Your task to perform on an android device: snooze an email in the gmail app Image 0: 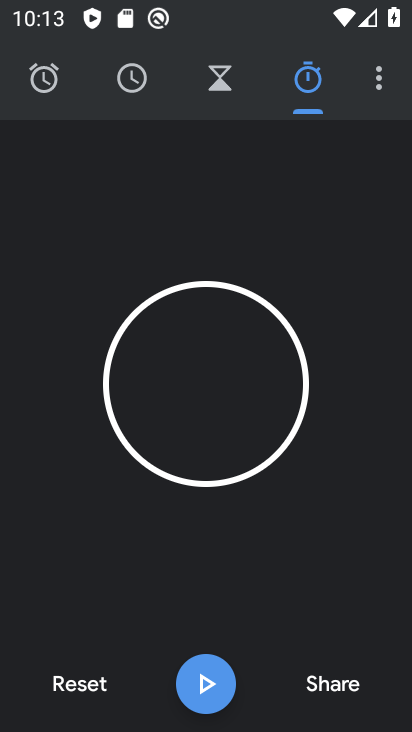
Step 0: press home button
Your task to perform on an android device: snooze an email in the gmail app Image 1: 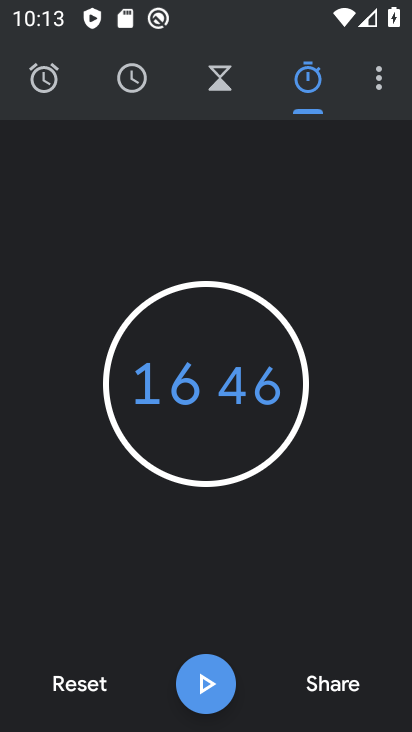
Step 1: press home button
Your task to perform on an android device: snooze an email in the gmail app Image 2: 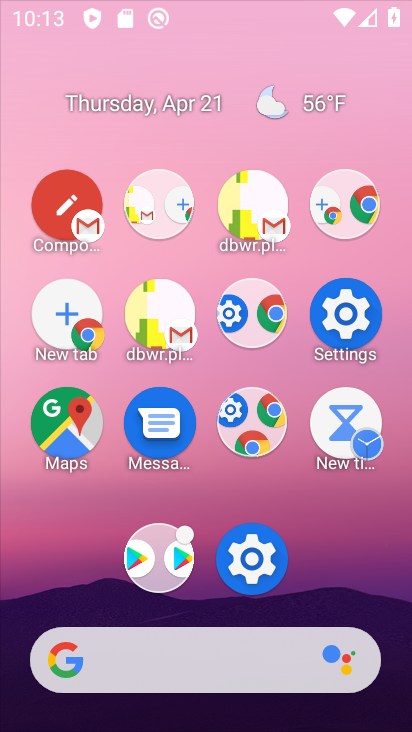
Step 2: press home button
Your task to perform on an android device: snooze an email in the gmail app Image 3: 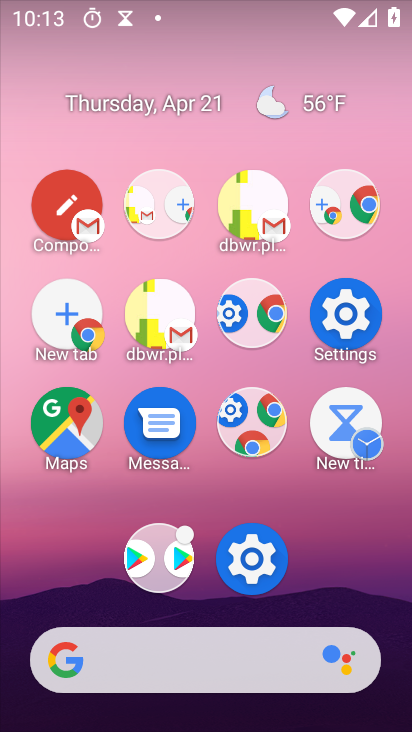
Step 3: press home button
Your task to perform on an android device: snooze an email in the gmail app Image 4: 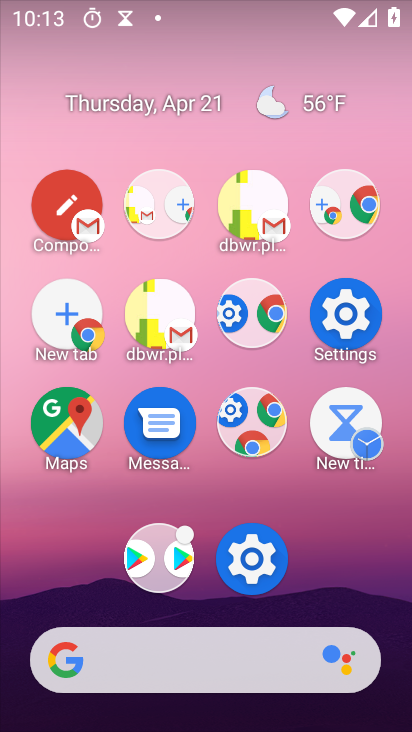
Step 4: press home button
Your task to perform on an android device: snooze an email in the gmail app Image 5: 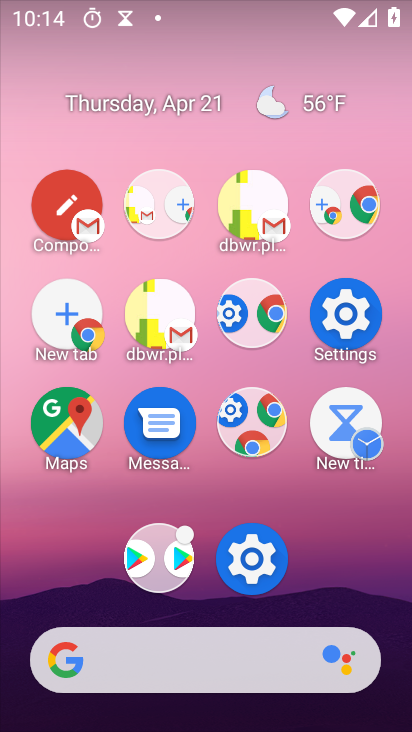
Step 5: drag from (349, 560) to (232, 74)
Your task to perform on an android device: snooze an email in the gmail app Image 6: 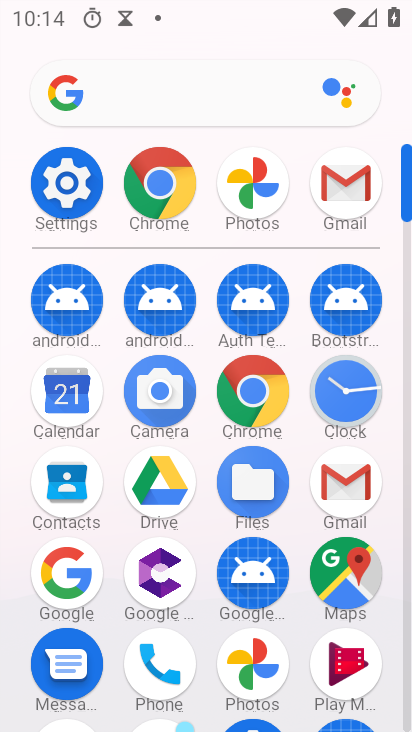
Step 6: click (355, 464)
Your task to perform on an android device: snooze an email in the gmail app Image 7: 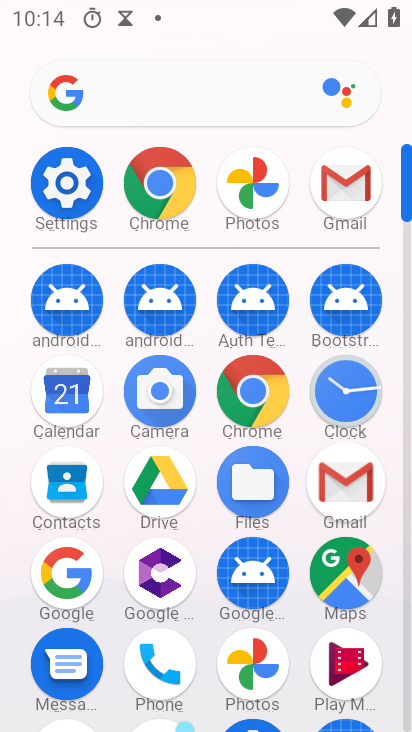
Step 7: click (355, 464)
Your task to perform on an android device: snooze an email in the gmail app Image 8: 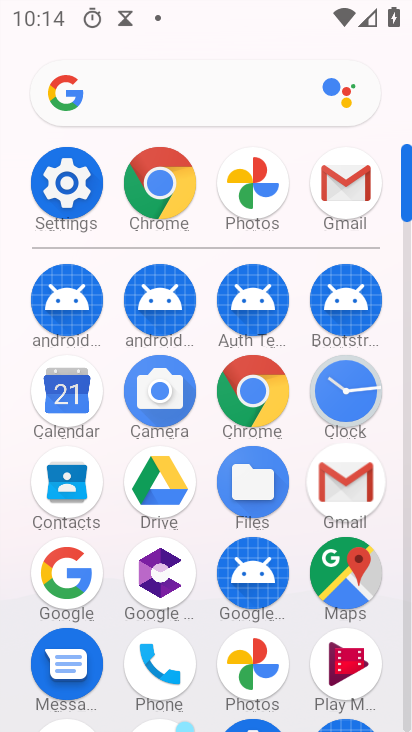
Step 8: click (354, 482)
Your task to perform on an android device: snooze an email in the gmail app Image 9: 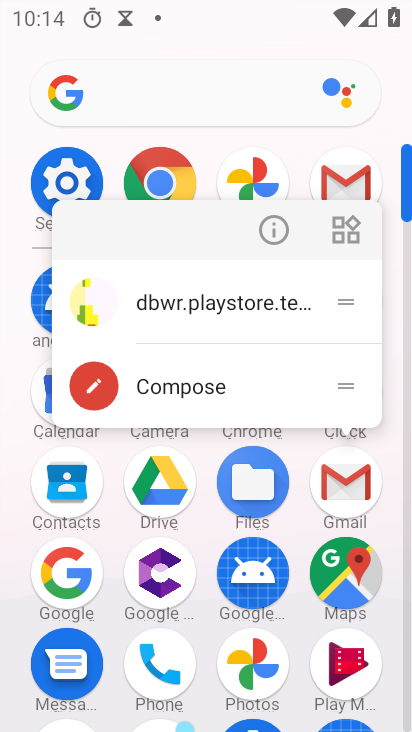
Step 9: click (343, 492)
Your task to perform on an android device: snooze an email in the gmail app Image 10: 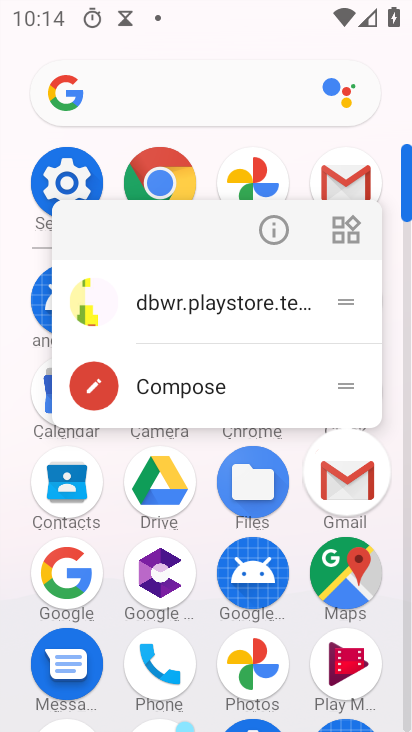
Step 10: click (343, 474)
Your task to perform on an android device: snooze an email in the gmail app Image 11: 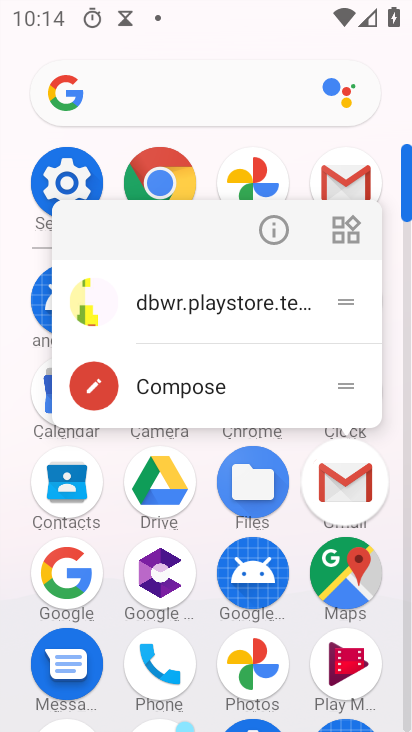
Step 11: click (347, 479)
Your task to perform on an android device: snooze an email in the gmail app Image 12: 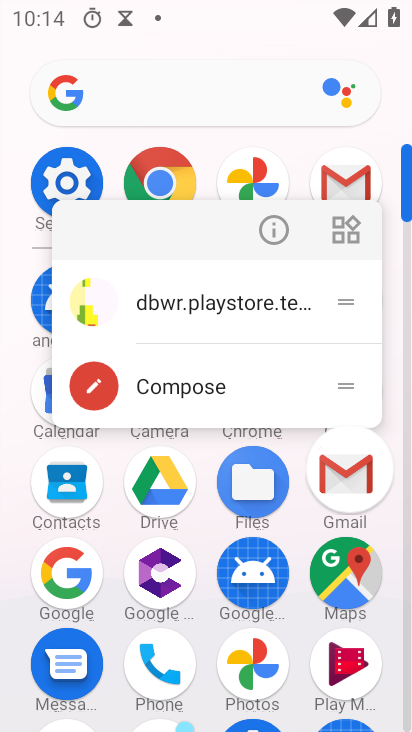
Step 12: click (359, 452)
Your task to perform on an android device: snooze an email in the gmail app Image 13: 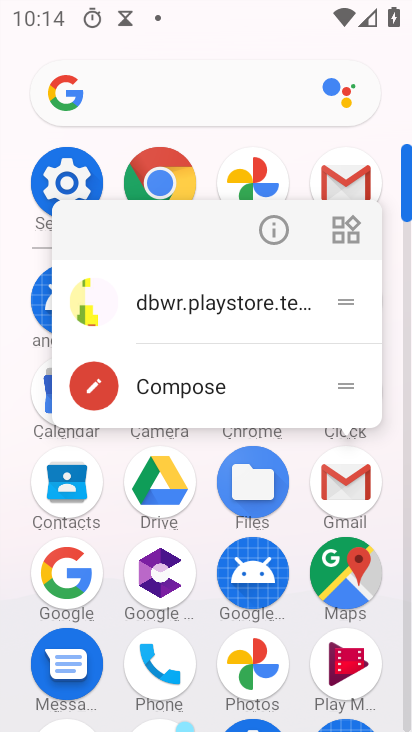
Step 13: click (338, 460)
Your task to perform on an android device: snooze an email in the gmail app Image 14: 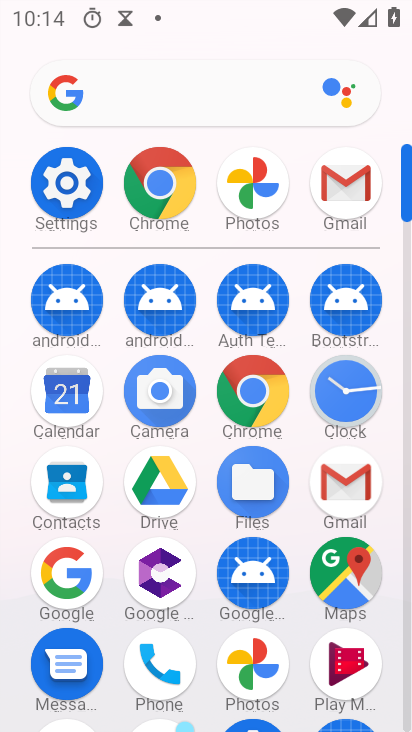
Step 14: click (343, 471)
Your task to perform on an android device: snooze an email in the gmail app Image 15: 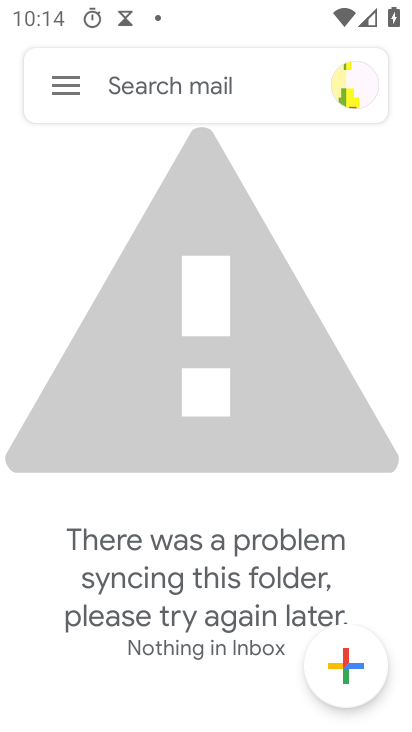
Step 15: click (57, 84)
Your task to perform on an android device: snooze an email in the gmail app Image 16: 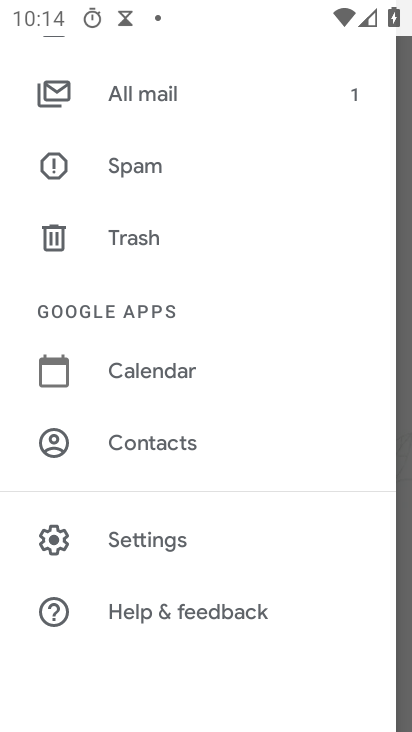
Step 16: click (151, 533)
Your task to perform on an android device: snooze an email in the gmail app Image 17: 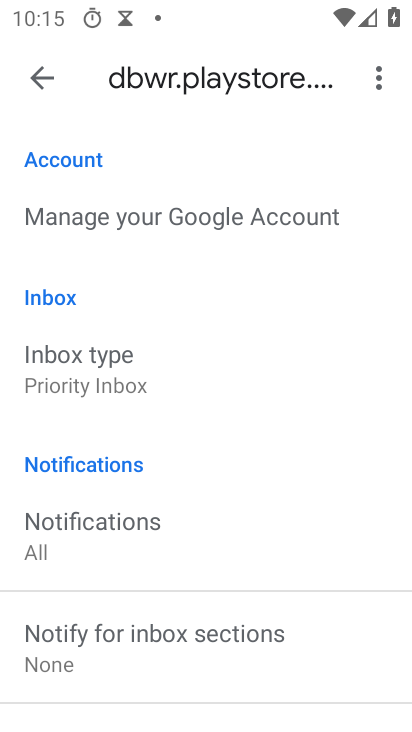
Step 17: click (39, 76)
Your task to perform on an android device: snooze an email in the gmail app Image 18: 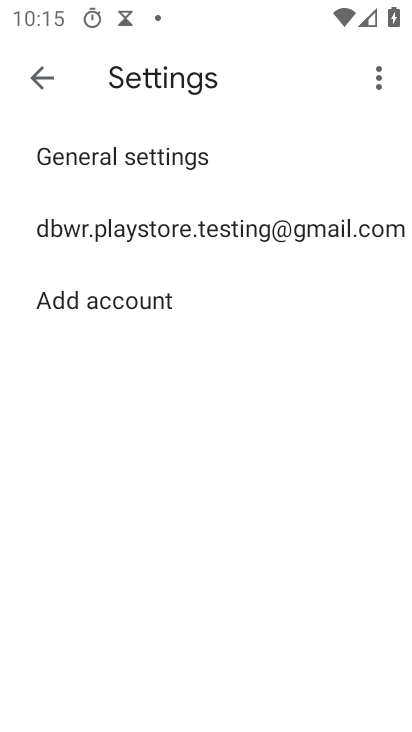
Step 18: click (31, 74)
Your task to perform on an android device: snooze an email in the gmail app Image 19: 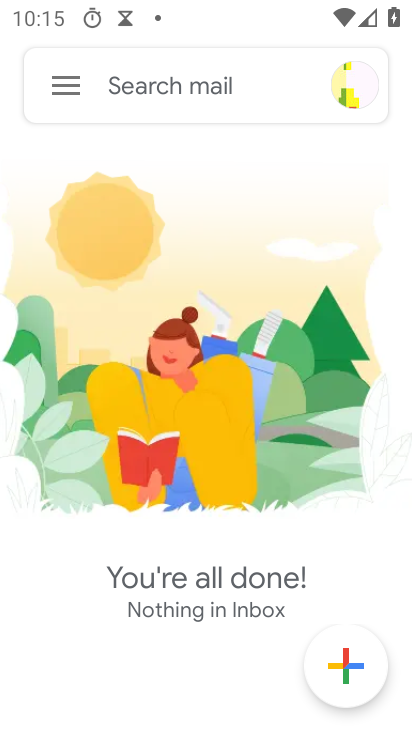
Step 19: drag from (64, 78) to (31, 148)
Your task to perform on an android device: snooze an email in the gmail app Image 20: 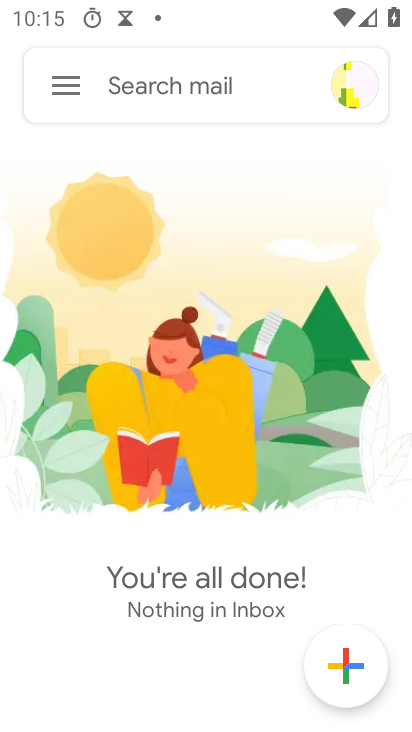
Step 20: drag from (73, 74) to (115, 479)
Your task to perform on an android device: snooze an email in the gmail app Image 21: 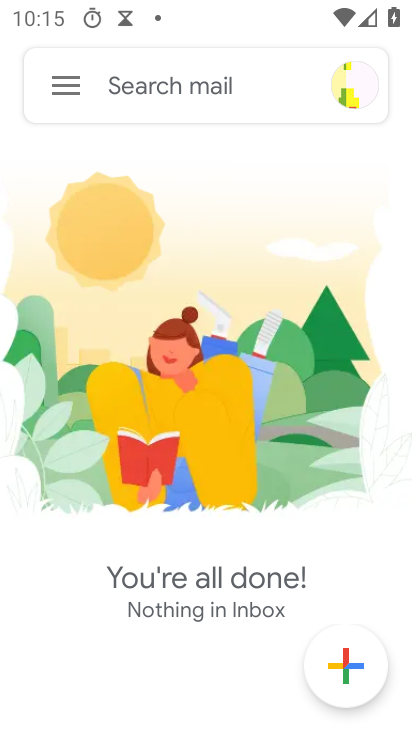
Step 21: drag from (74, 88) to (83, 568)
Your task to perform on an android device: snooze an email in the gmail app Image 22: 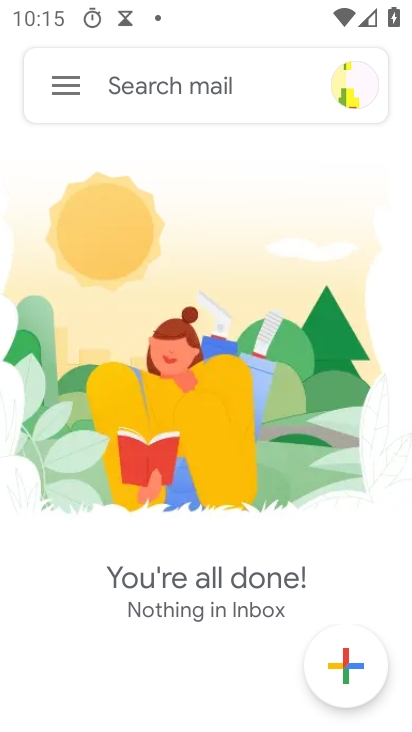
Step 22: drag from (68, 84) to (94, 495)
Your task to perform on an android device: snooze an email in the gmail app Image 23: 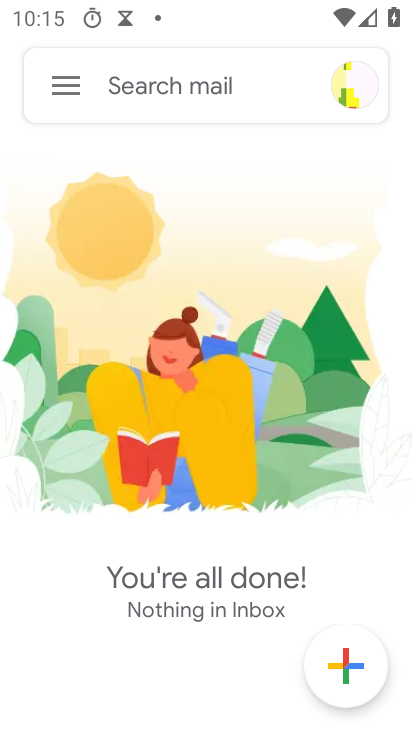
Step 23: click (64, 87)
Your task to perform on an android device: snooze an email in the gmail app Image 24: 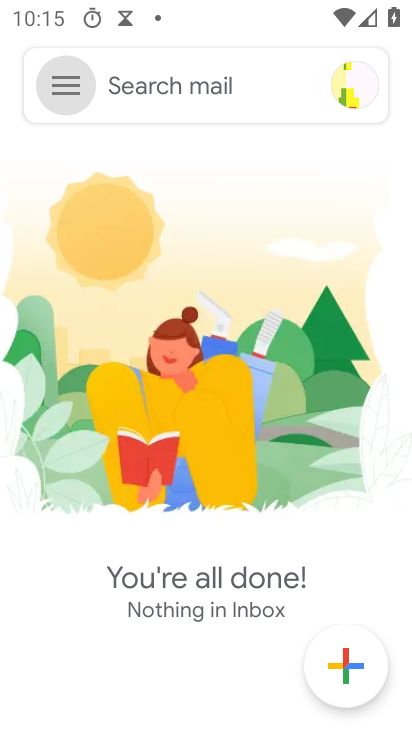
Step 24: click (64, 87)
Your task to perform on an android device: snooze an email in the gmail app Image 25: 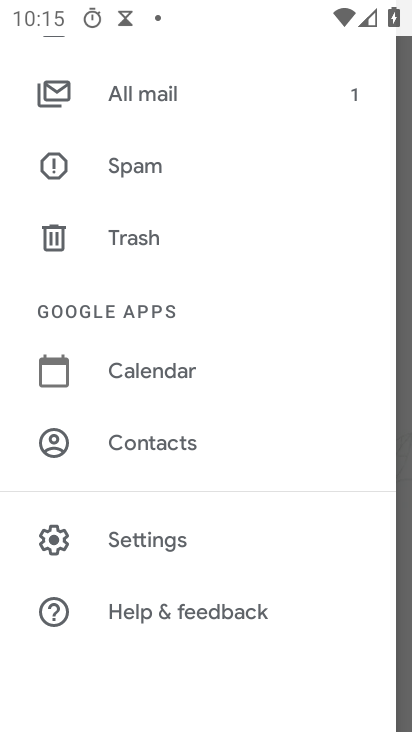
Step 25: drag from (130, 257) to (157, 447)
Your task to perform on an android device: snooze an email in the gmail app Image 26: 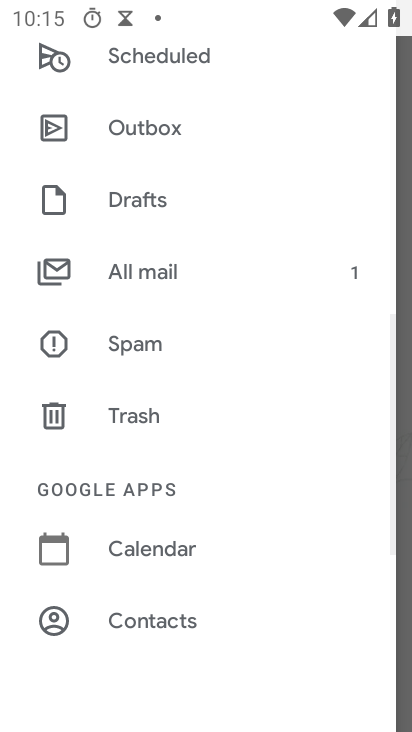
Step 26: drag from (160, 195) to (195, 404)
Your task to perform on an android device: snooze an email in the gmail app Image 27: 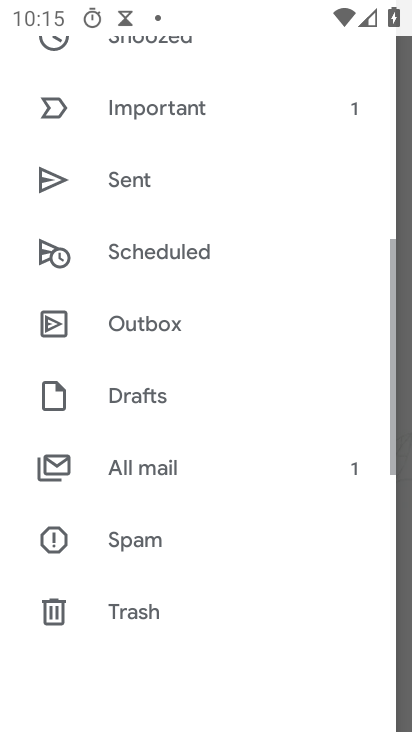
Step 27: drag from (181, 125) to (227, 490)
Your task to perform on an android device: snooze an email in the gmail app Image 28: 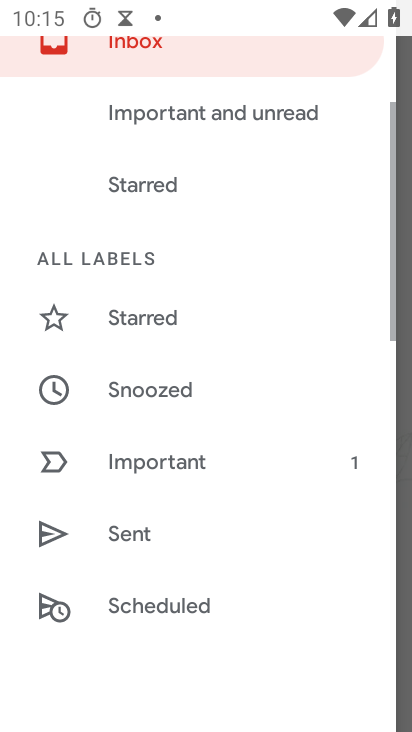
Step 28: drag from (170, 139) to (223, 533)
Your task to perform on an android device: snooze an email in the gmail app Image 29: 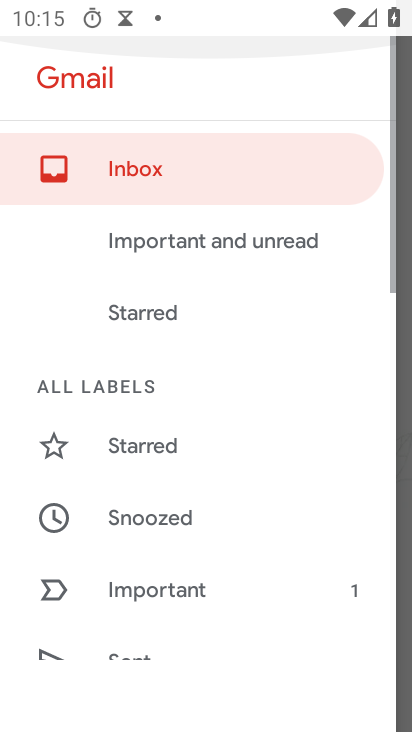
Step 29: click (237, 489)
Your task to perform on an android device: snooze an email in the gmail app Image 30: 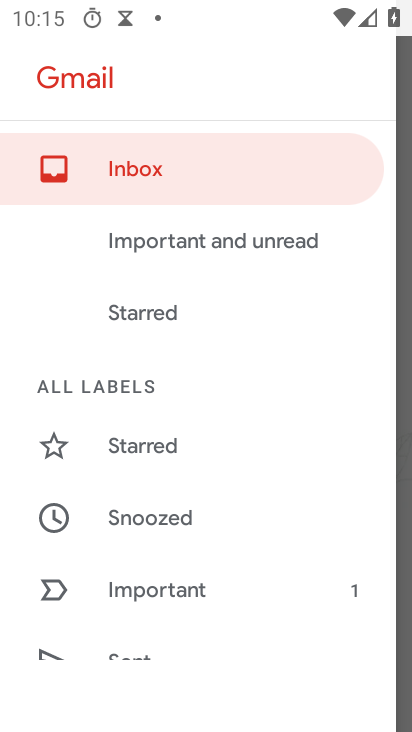
Step 30: drag from (185, 537) to (185, 231)
Your task to perform on an android device: snooze an email in the gmail app Image 31: 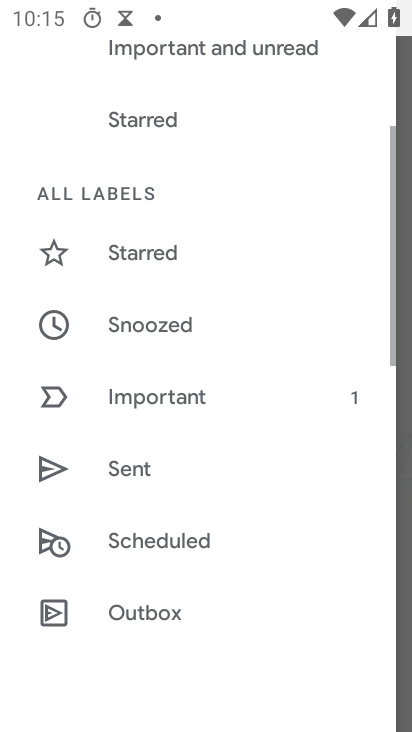
Step 31: drag from (206, 416) to (237, 140)
Your task to perform on an android device: snooze an email in the gmail app Image 32: 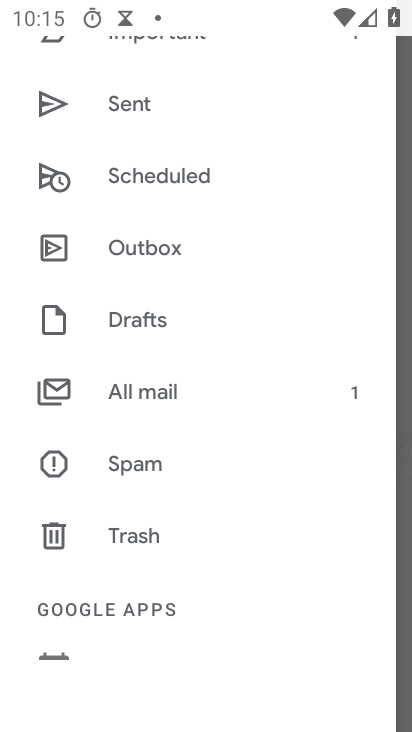
Step 32: click (147, 389)
Your task to perform on an android device: snooze an email in the gmail app Image 33: 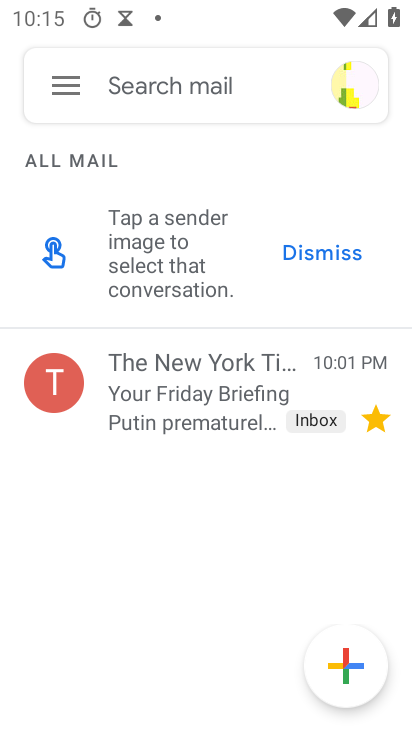
Step 33: drag from (203, 411) to (244, 199)
Your task to perform on an android device: snooze an email in the gmail app Image 34: 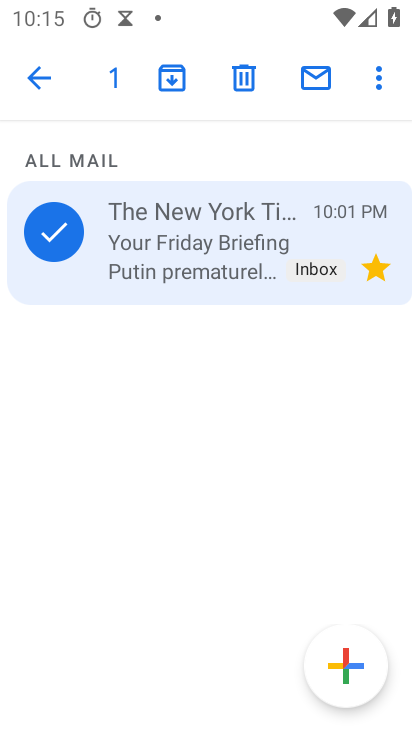
Step 34: click (374, 73)
Your task to perform on an android device: snooze an email in the gmail app Image 35: 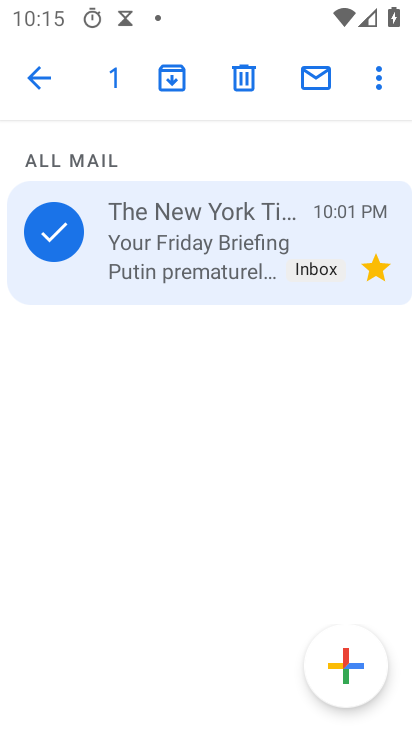
Step 35: click (375, 78)
Your task to perform on an android device: snooze an email in the gmail app Image 36: 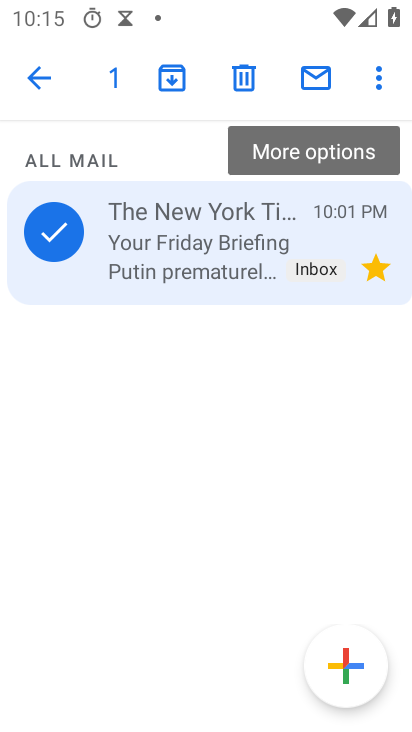
Step 36: click (375, 78)
Your task to perform on an android device: snooze an email in the gmail app Image 37: 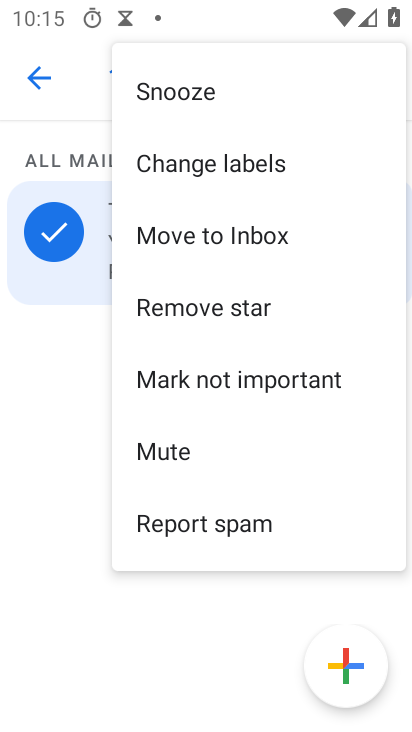
Step 37: click (173, 92)
Your task to perform on an android device: snooze an email in the gmail app Image 38: 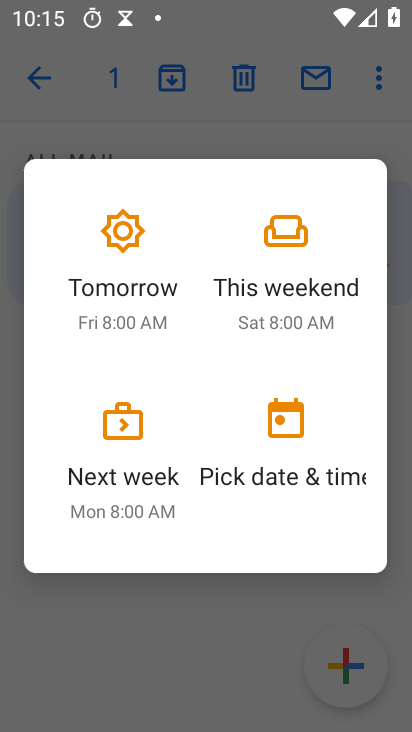
Step 38: click (105, 300)
Your task to perform on an android device: snooze an email in the gmail app Image 39: 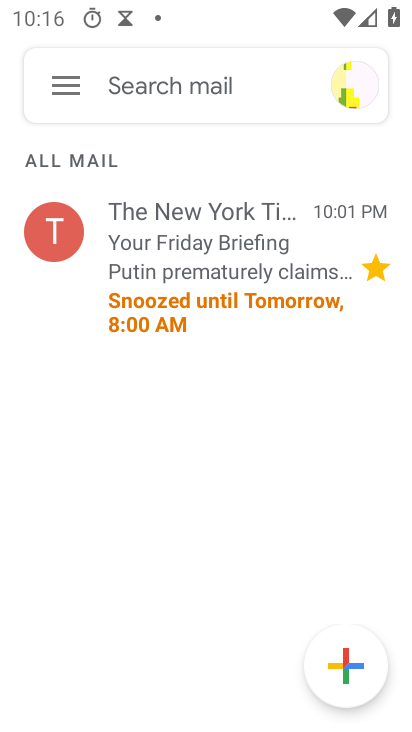
Step 39: task complete